Your task to perform on an android device: add a contact Image 0: 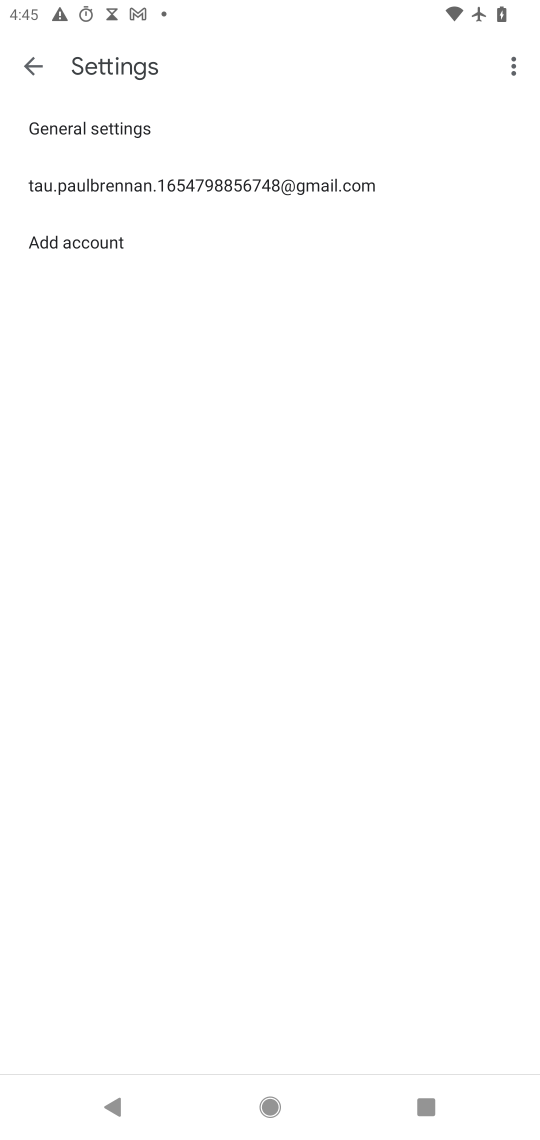
Step 0: press home button
Your task to perform on an android device: add a contact Image 1: 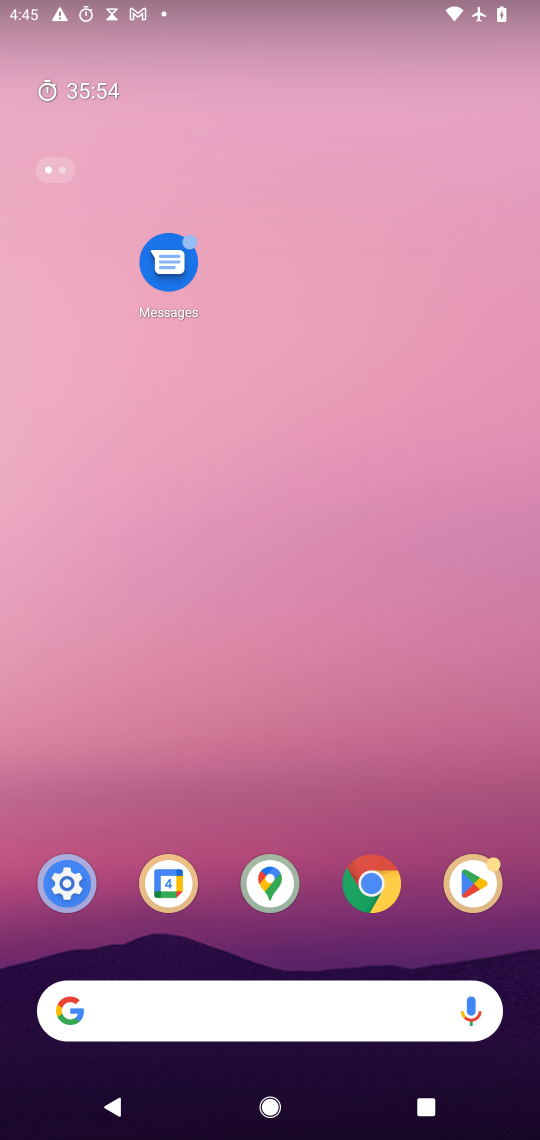
Step 1: drag from (315, 950) to (252, 13)
Your task to perform on an android device: add a contact Image 2: 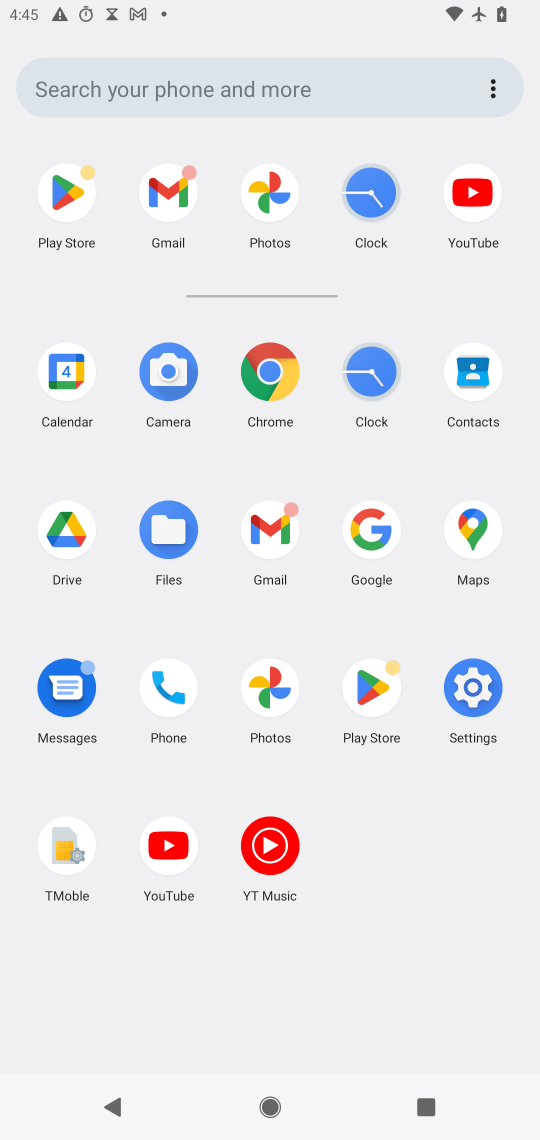
Step 2: click (469, 379)
Your task to perform on an android device: add a contact Image 3: 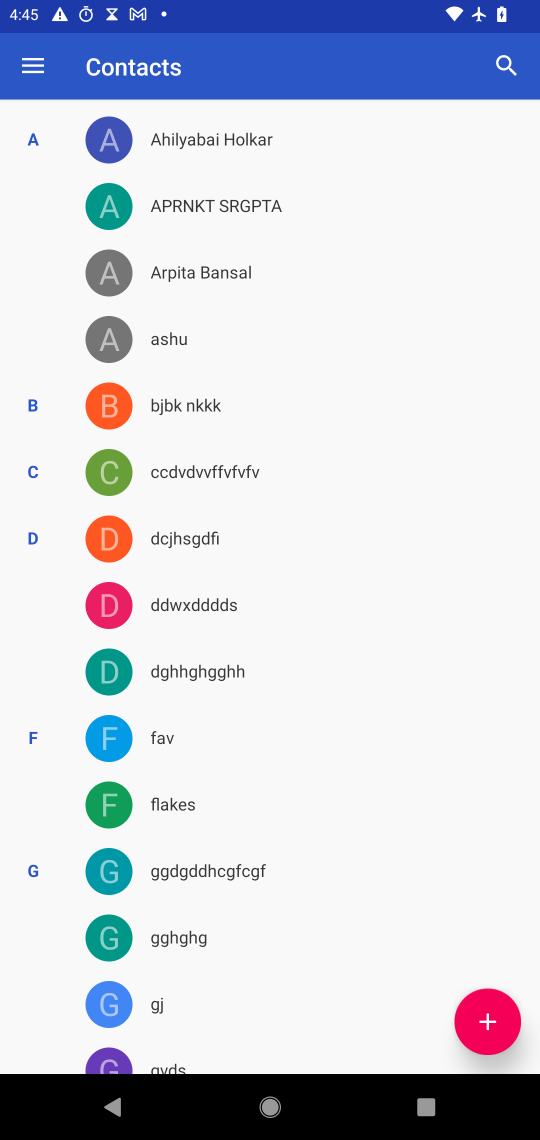
Step 3: click (489, 1024)
Your task to perform on an android device: add a contact Image 4: 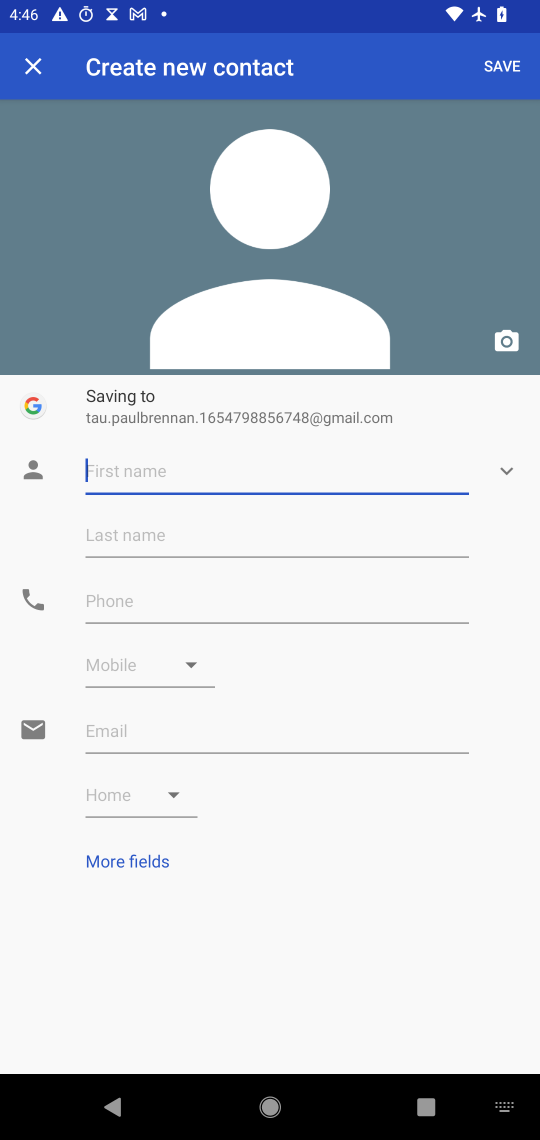
Step 4: type "kkkk"
Your task to perform on an android device: add a contact Image 5: 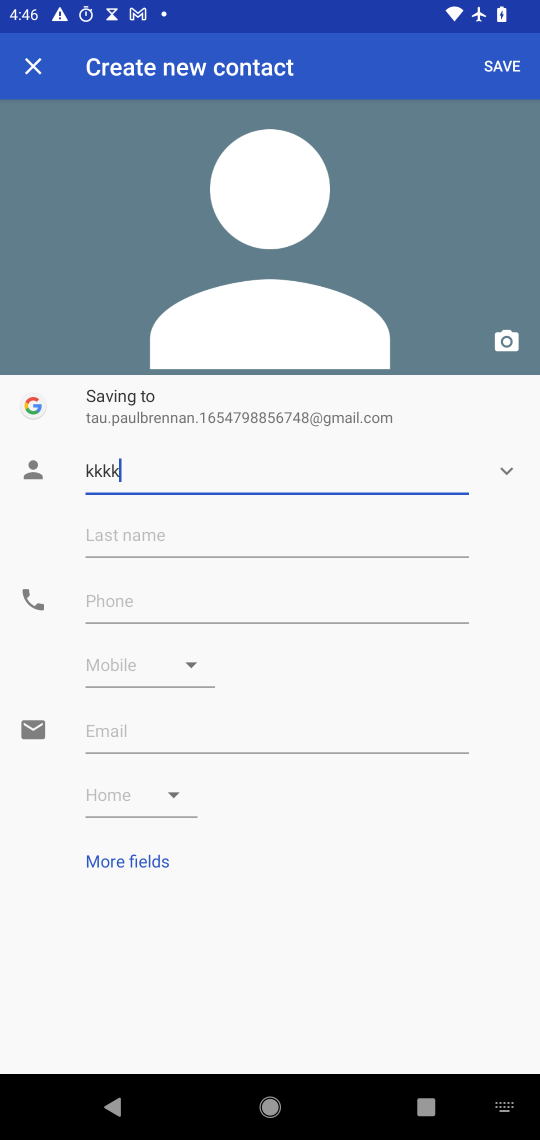
Step 5: click (159, 605)
Your task to perform on an android device: add a contact Image 6: 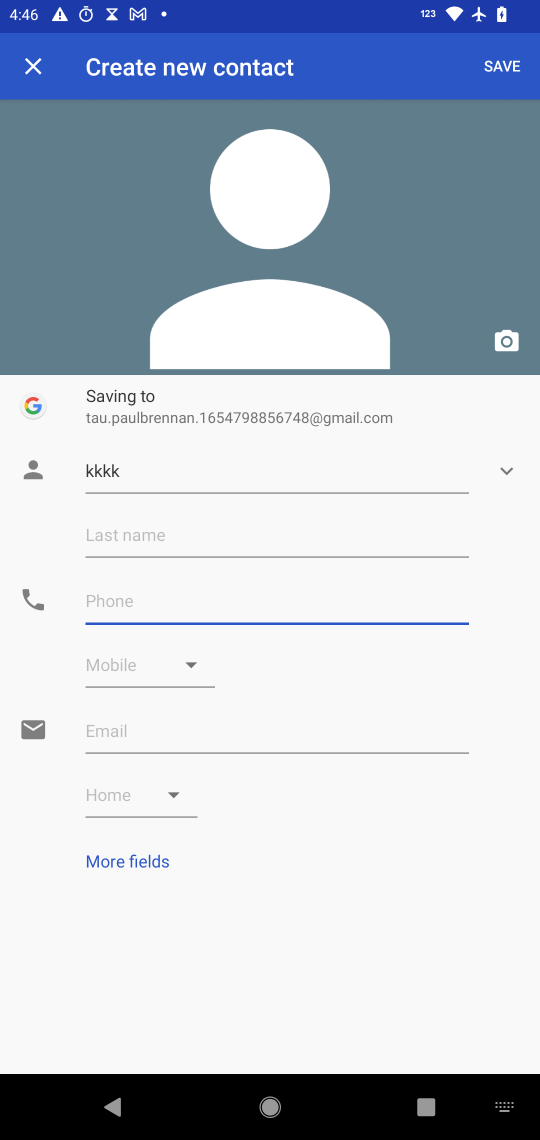
Step 6: type "878787"
Your task to perform on an android device: add a contact Image 7: 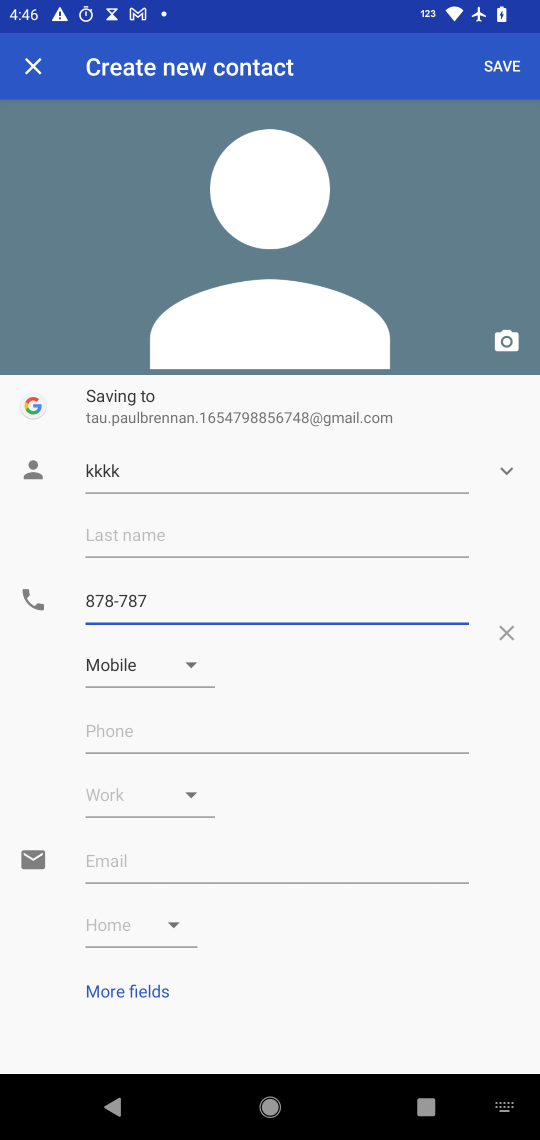
Step 7: click (503, 68)
Your task to perform on an android device: add a contact Image 8: 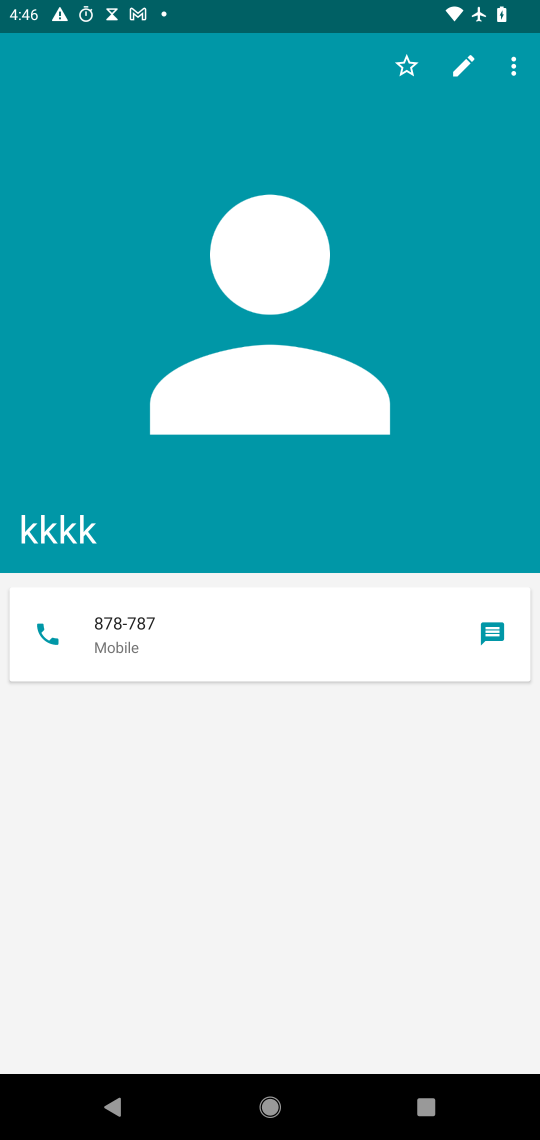
Step 8: task complete